Your task to perform on an android device: Set the phone to "Do not disturb". Image 0: 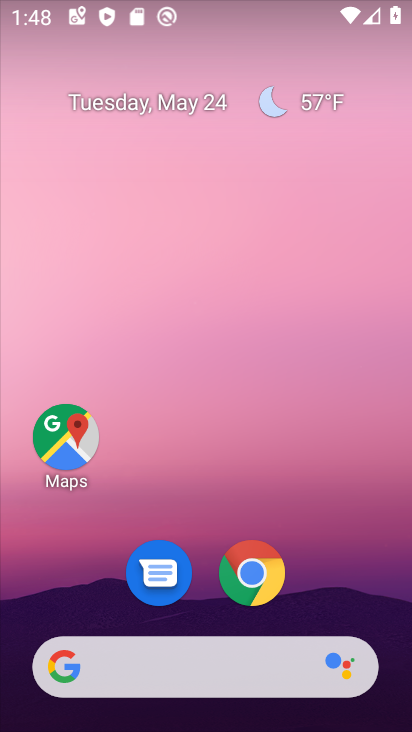
Step 0: drag from (346, 589) to (348, 85)
Your task to perform on an android device: Set the phone to "Do not disturb". Image 1: 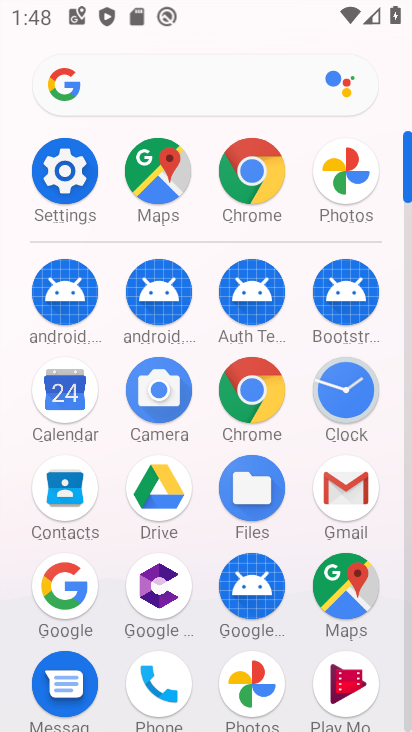
Step 1: click (66, 166)
Your task to perform on an android device: Set the phone to "Do not disturb". Image 2: 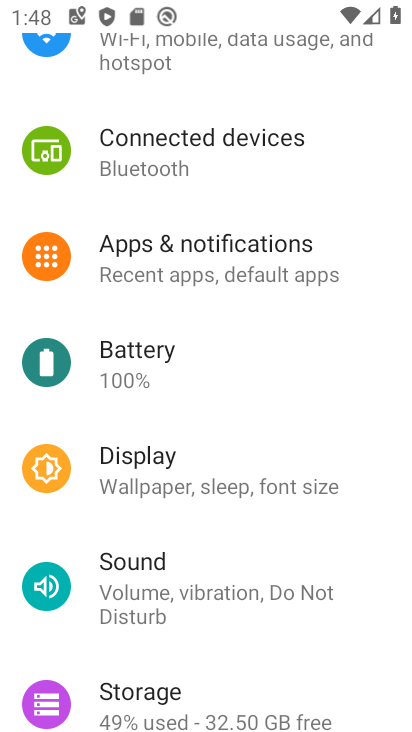
Step 2: click (238, 590)
Your task to perform on an android device: Set the phone to "Do not disturb". Image 3: 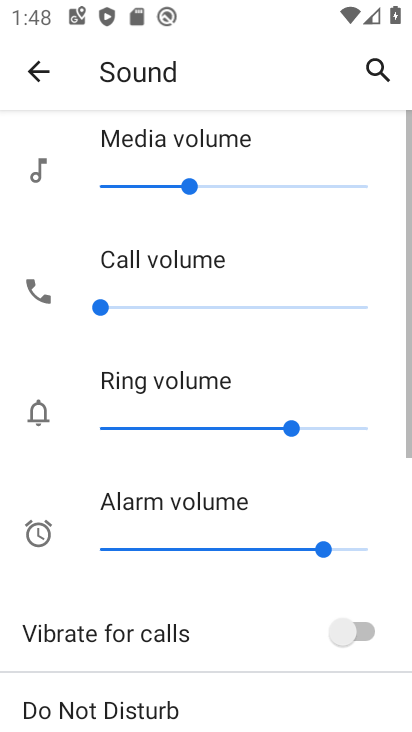
Step 3: drag from (234, 638) to (281, 291)
Your task to perform on an android device: Set the phone to "Do not disturb". Image 4: 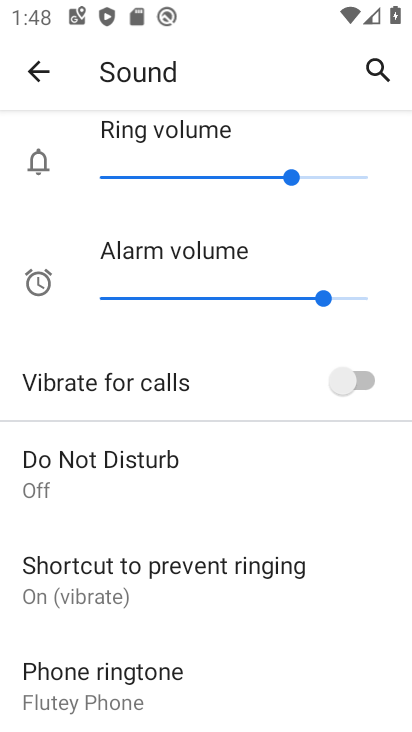
Step 4: click (156, 467)
Your task to perform on an android device: Set the phone to "Do not disturb". Image 5: 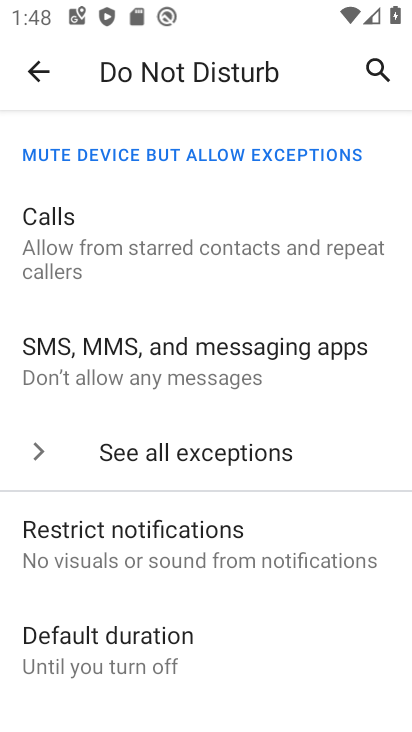
Step 5: drag from (193, 634) to (265, 274)
Your task to perform on an android device: Set the phone to "Do not disturb". Image 6: 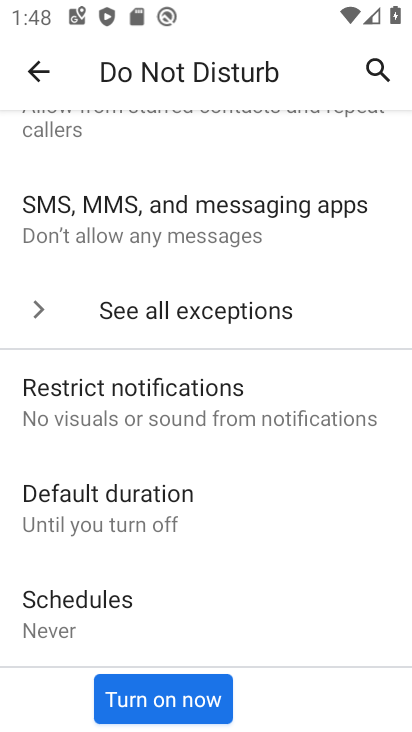
Step 6: click (171, 704)
Your task to perform on an android device: Set the phone to "Do not disturb". Image 7: 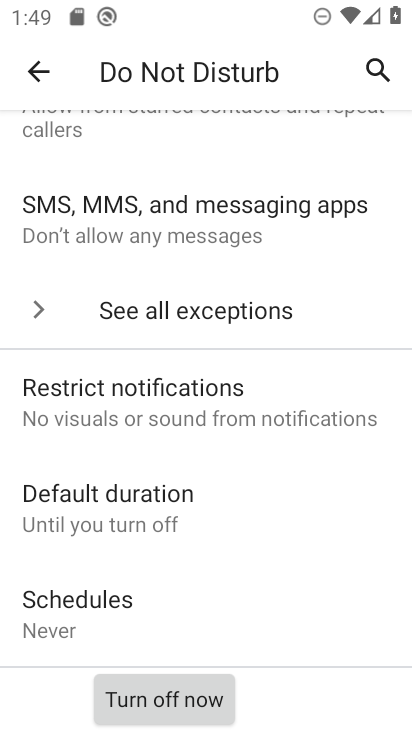
Step 7: task complete